Your task to perform on an android device: clear history in the chrome app Image 0: 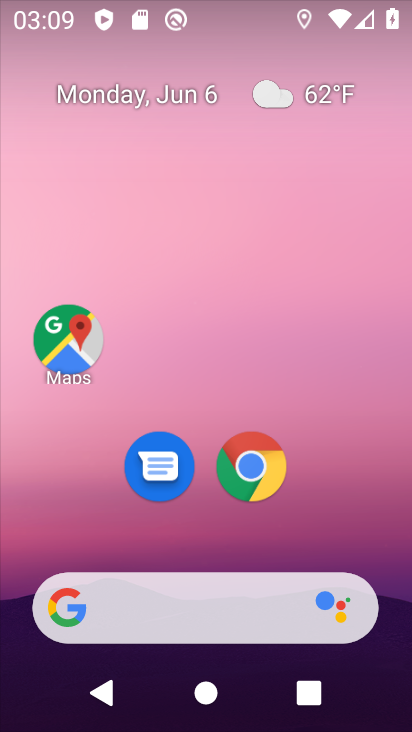
Step 0: drag from (343, 462) to (358, 68)
Your task to perform on an android device: clear history in the chrome app Image 1: 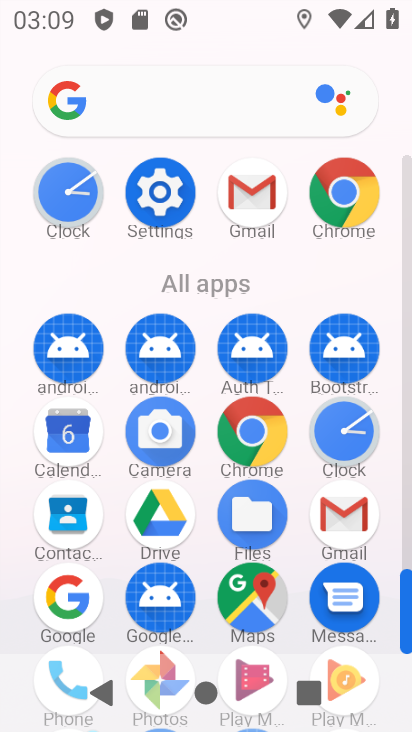
Step 1: click (353, 189)
Your task to perform on an android device: clear history in the chrome app Image 2: 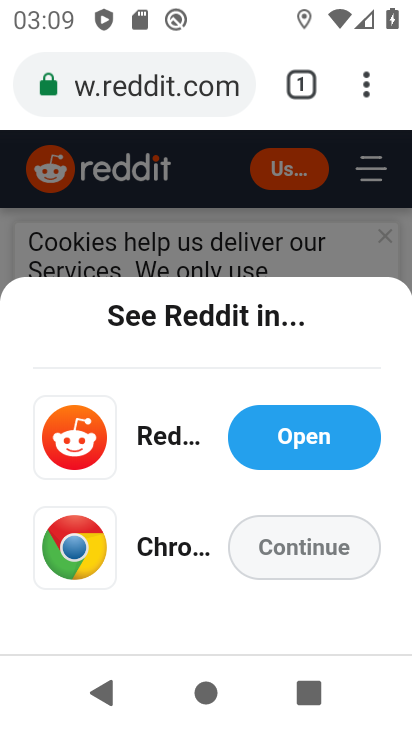
Step 2: drag from (371, 80) to (194, 491)
Your task to perform on an android device: clear history in the chrome app Image 3: 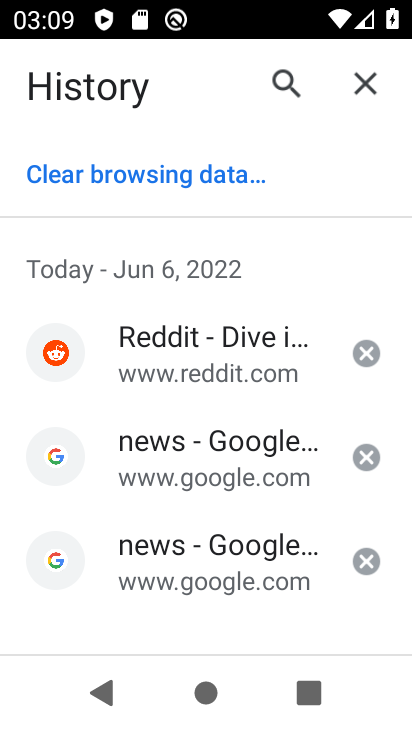
Step 3: click (186, 165)
Your task to perform on an android device: clear history in the chrome app Image 4: 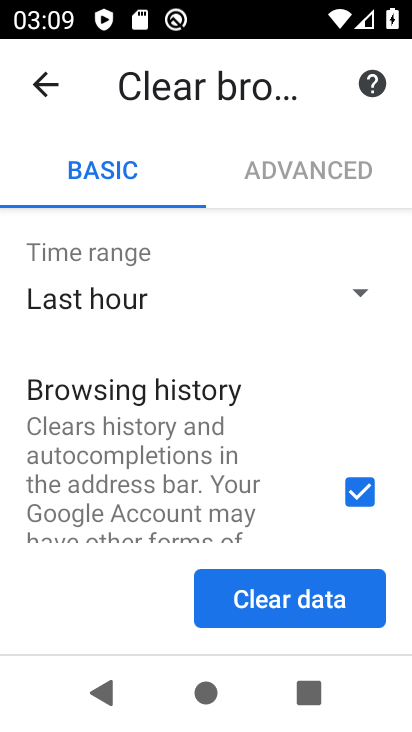
Step 4: click (268, 291)
Your task to perform on an android device: clear history in the chrome app Image 5: 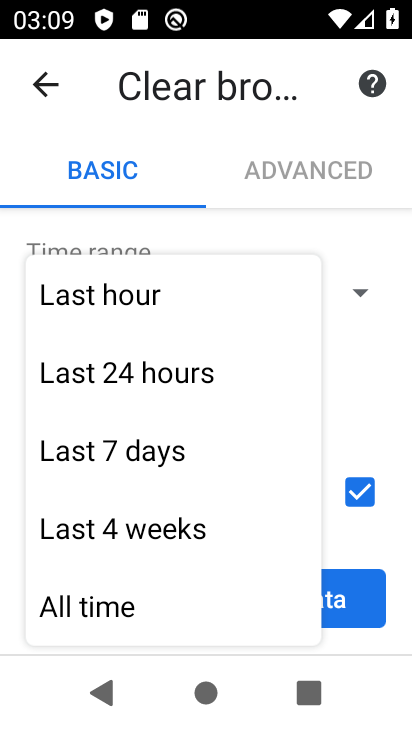
Step 5: click (141, 594)
Your task to perform on an android device: clear history in the chrome app Image 6: 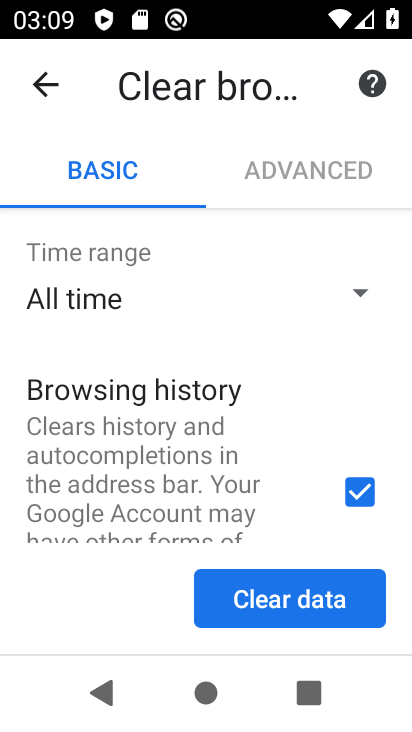
Step 6: click (281, 597)
Your task to perform on an android device: clear history in the chrome app Image 7: 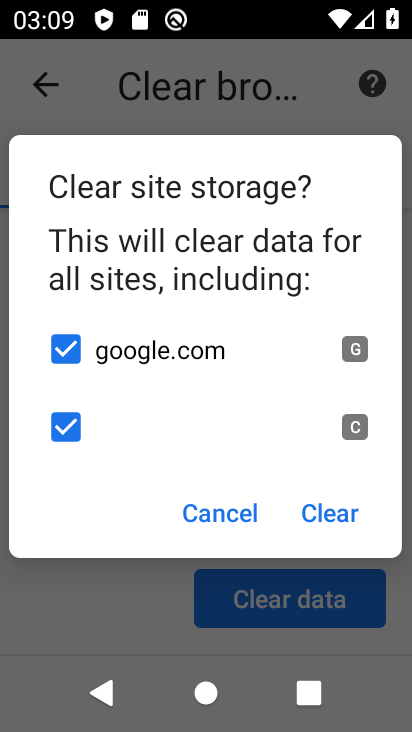
Step 7: click (328, 507)
Your task to perform on an android device: clear history in the chrome app Image 8: 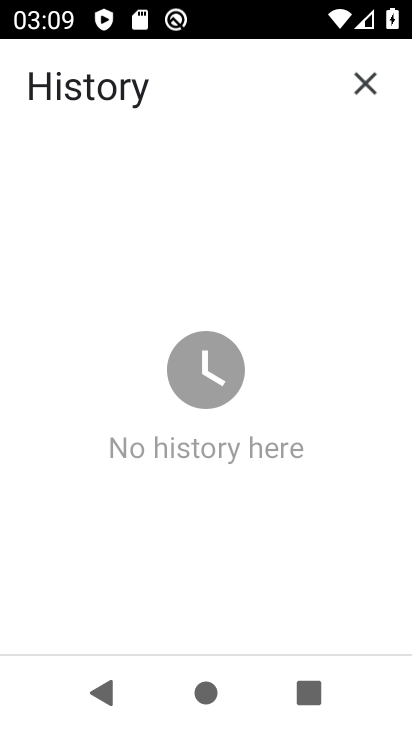
Step 8: click (374, 73)
Your task to perform on an android device: clear history in the chrome app Image 9: 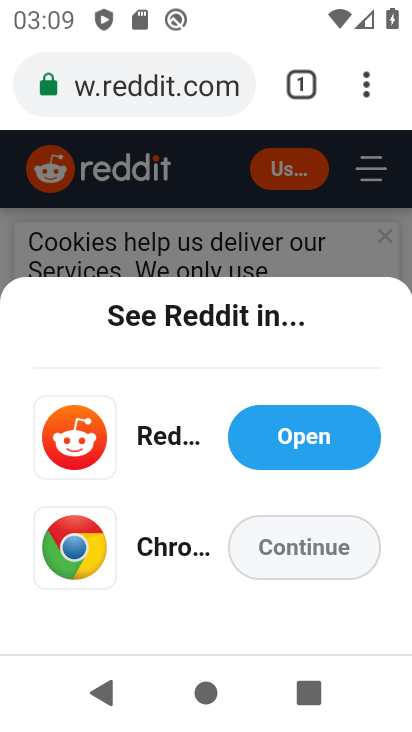
Step 9: task complete